Your task to perform on an android device: change alarm snooze length Image 0: 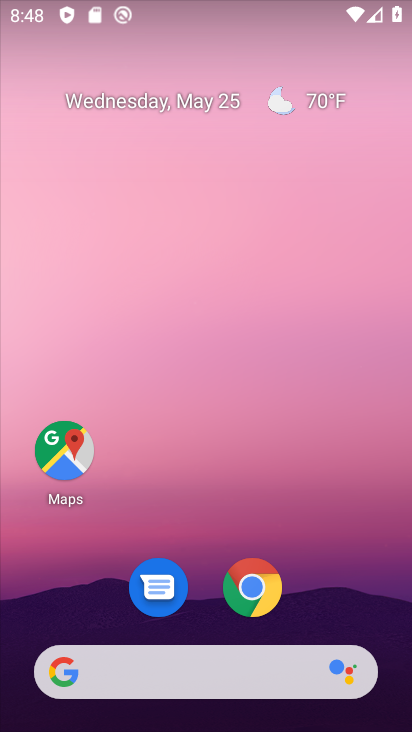
Step 0: drag from (205, 568) to (279, 24)
Your task to perform on an android device: change alarm snooze length Image 1: 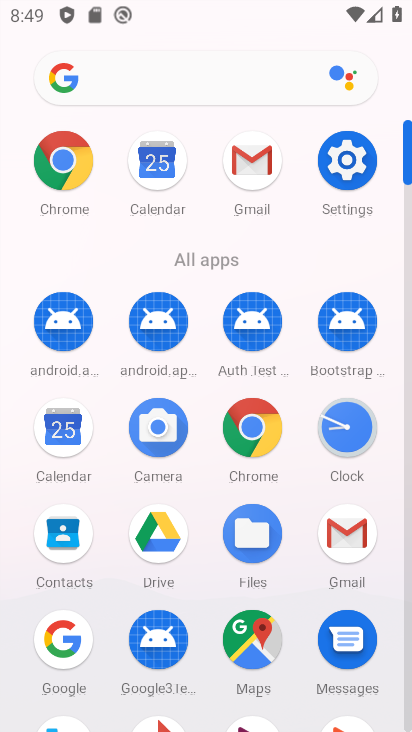
Step 1: click (344, 432)
Your task to perform on an android device: change alarm snooze length Image 2: 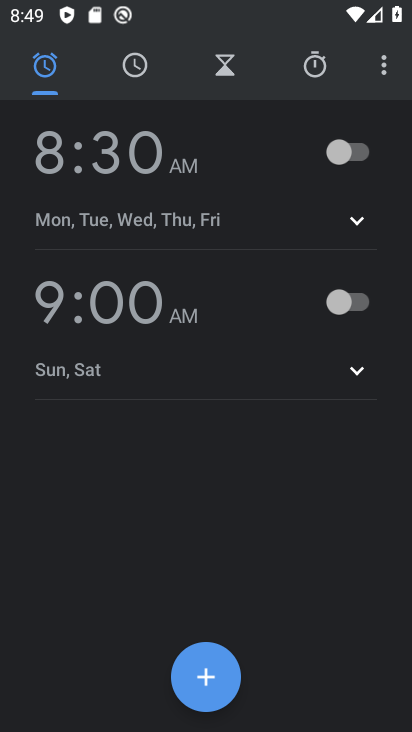
Step 2: click (377, 78)
Your task to perform on an android device: change alarm snooze length Image 3: 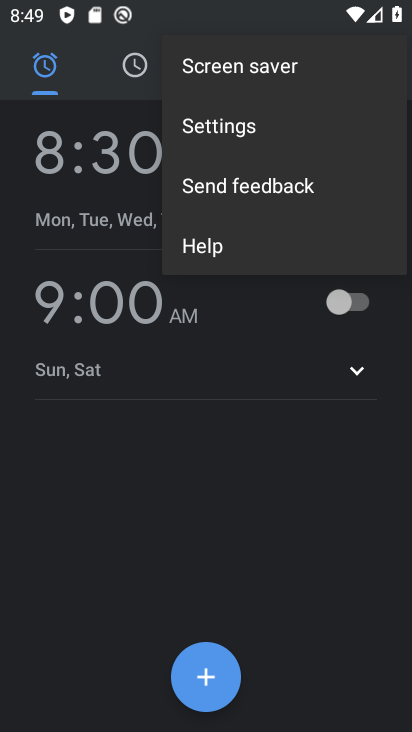
Step 3: click (214, 129)
Your task to perform on an android device: change alarm snooze length Image 4: 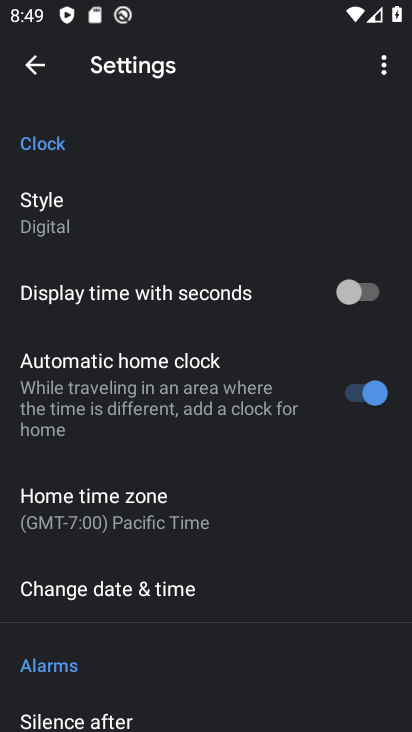
Step 4: drag from (167, 477) to (205, 155)
Your task to perform on an android device: change alarm snooze length Image 5: 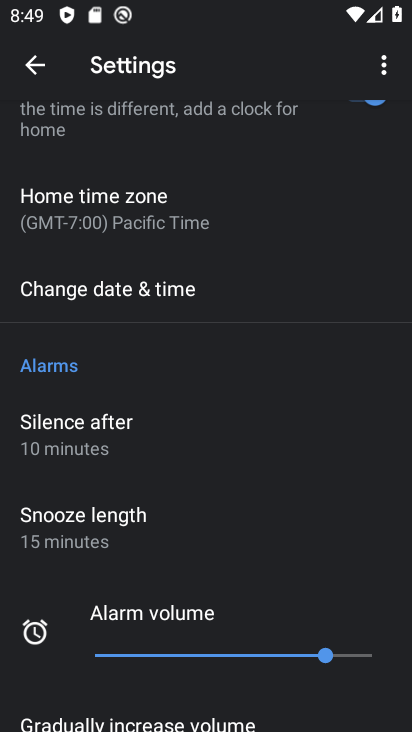
Step 5: click (112, 527)
Your task to perform on an android device: change alarm snooze length Image 6: 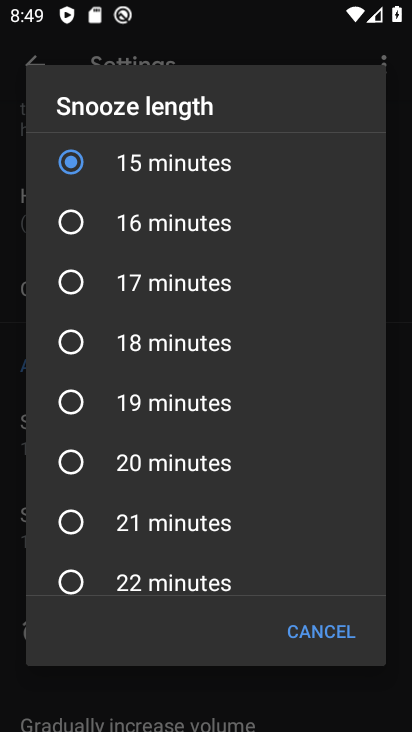
Step 6: click (123, 472)
Your task to perform on an android device: change alarm snooze length Image 7: 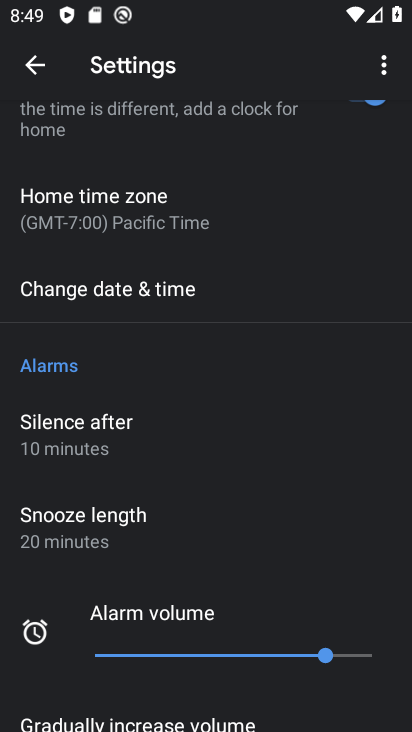
Step 7: task complete